Your task to perform on an android device: Go to wifi settings Image 0: 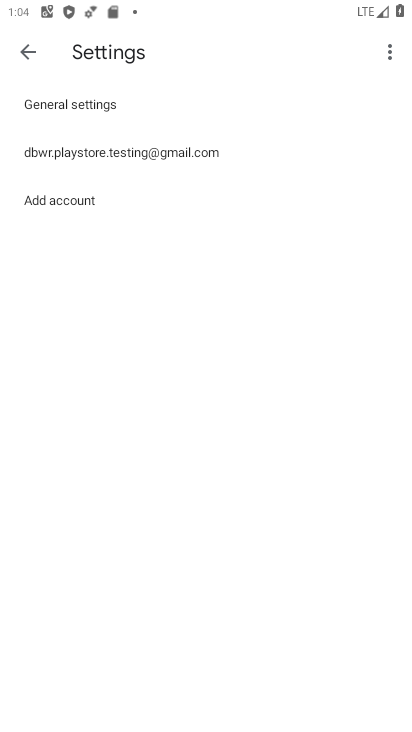
Step 0: press home button
Your task to perform on an android device: Go to wifi settings Image 1: 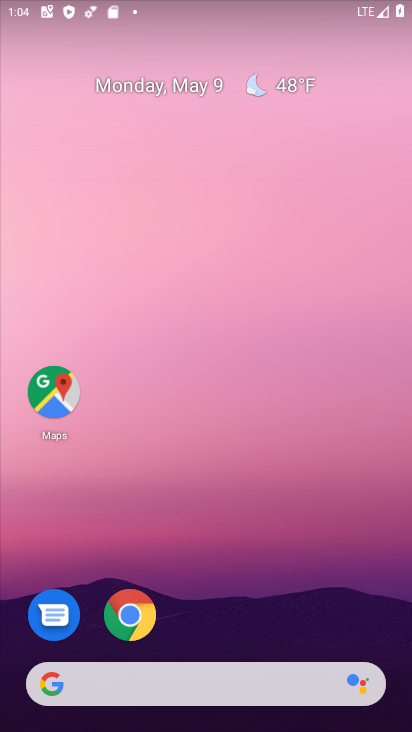
Step 1: drag from (372, 626) to (342, 40)
Your task to perform on an android device: Go to wifi settings Image 2: 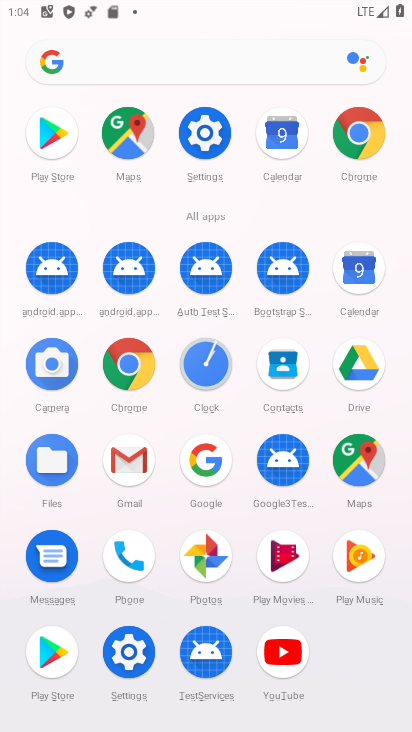
Step 2: click (129, 654)
Your task to perform on an android device: Go to wifi settings Image 3: 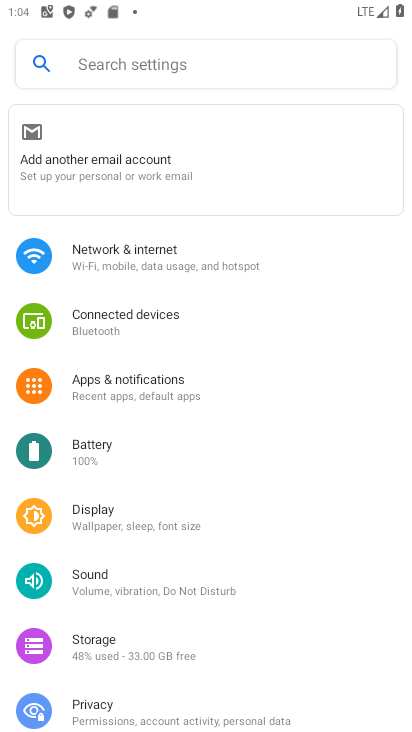
Step 3: click (105, 245)
Your task to perform on an android device: Go to wifi settings Image 4: 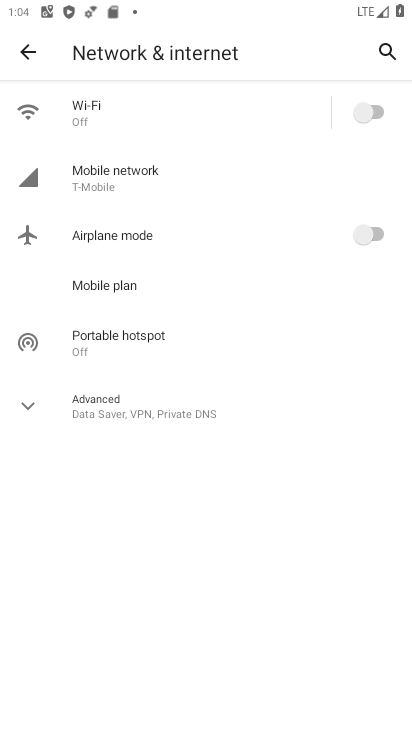
Step 4: click (58, 103)
Your task to perform on an android device: Go to wifi settings Image 5: 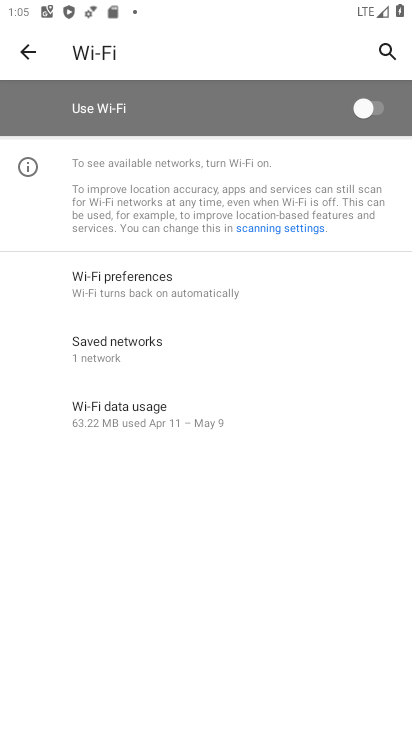
Step 5: task complete